Your task to perform on an android device: Add macbook air to the cart on ebay Image 0: 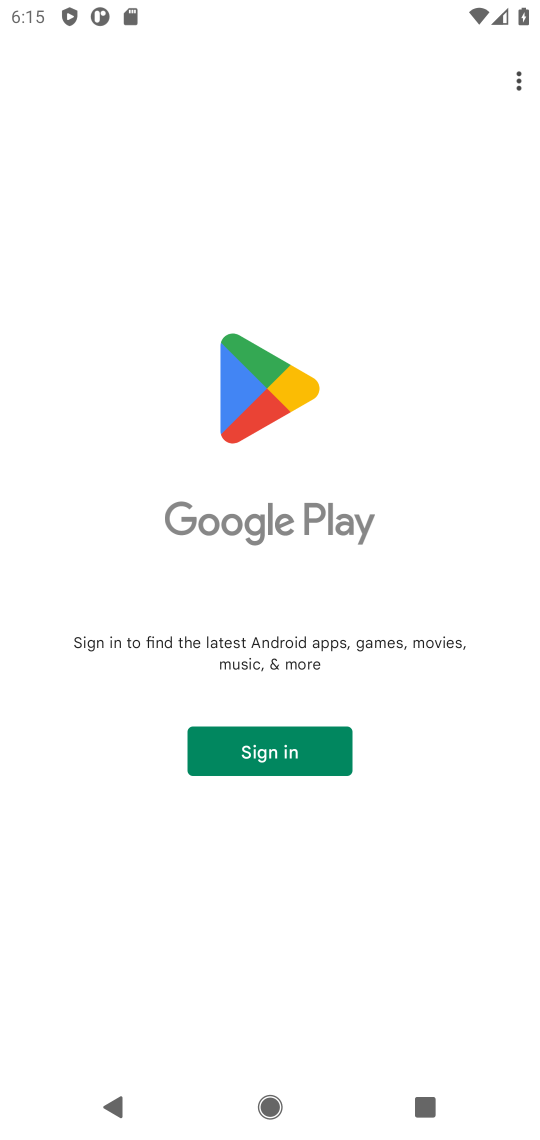
Step 0: press home button
Your task to perform on an android device: Add macbook air to the cart on ebay Image 1: 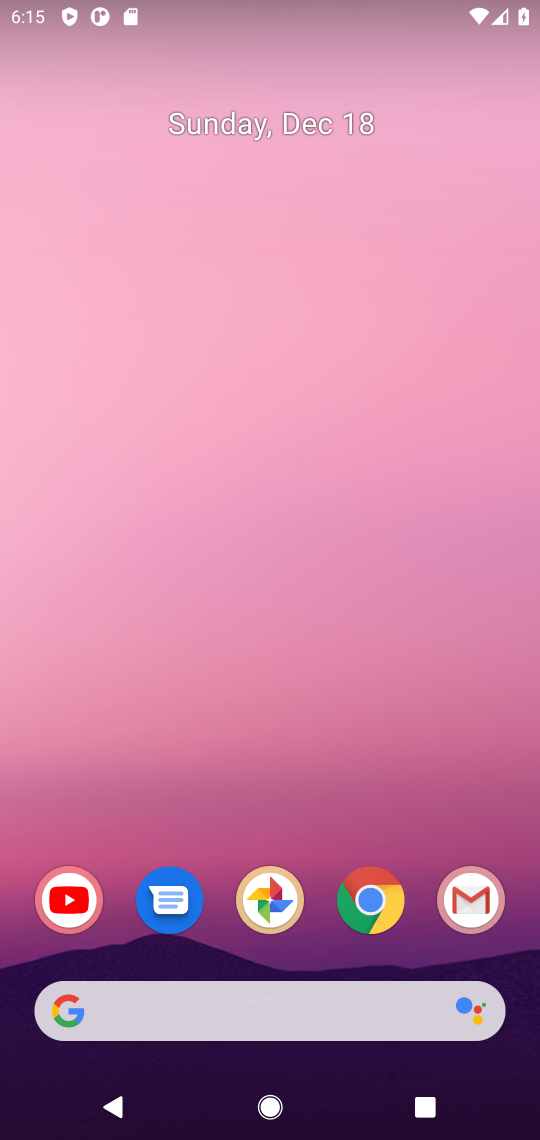
Step 1: click (363, 888)
Your task to perform on an android device: Add macbook air to the cart on ebay Image 2: 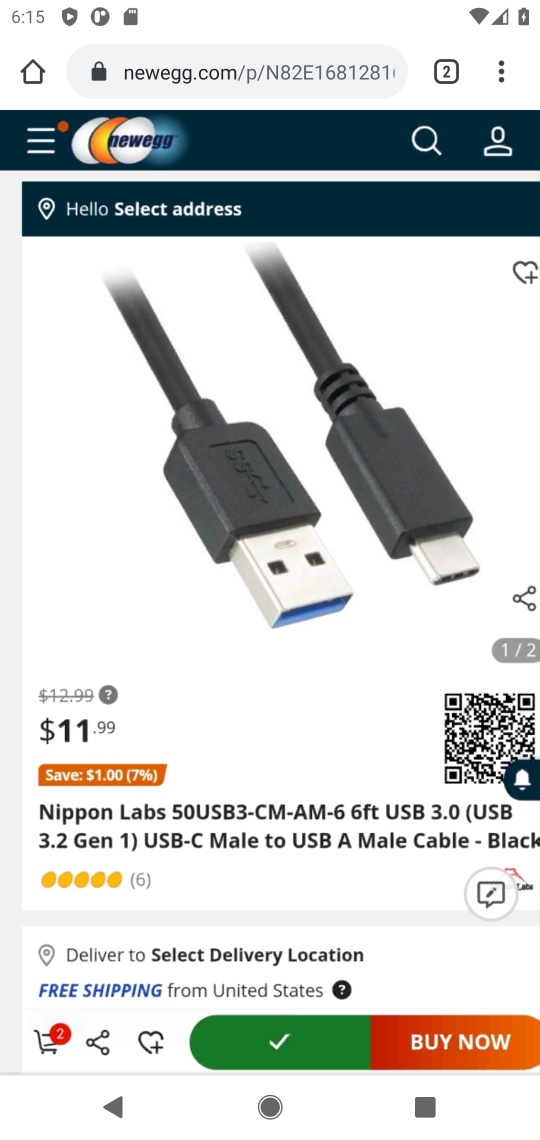
Step 2: click (442, 74)
Your task to perform on an android device: Add macbook air to the cart on ebay Image 3: 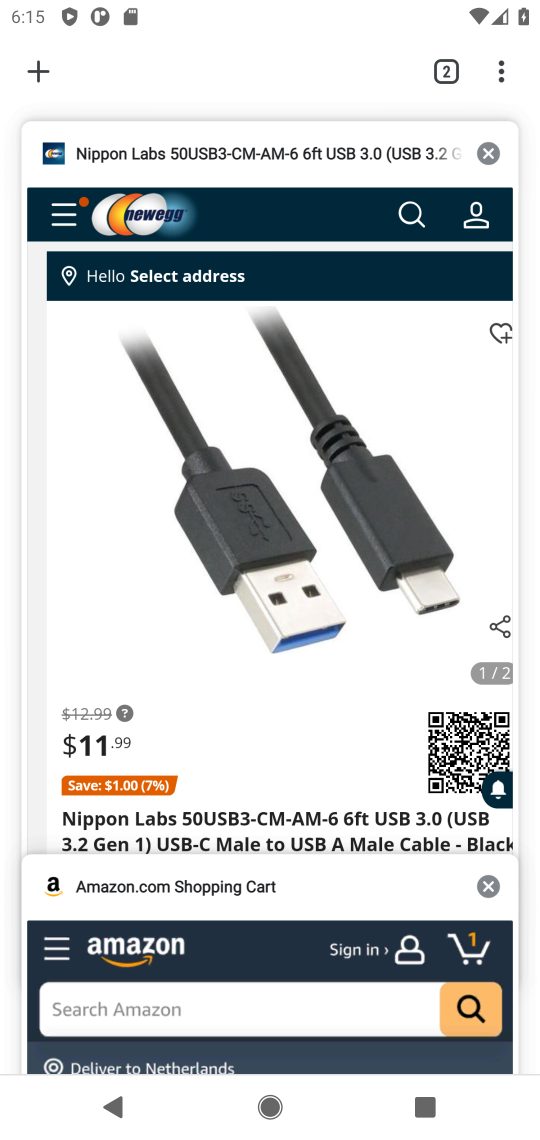
Step 3: click (37, 72)
Your task to perform on an android device: Add macbook air to the cart on ebay Image 4: 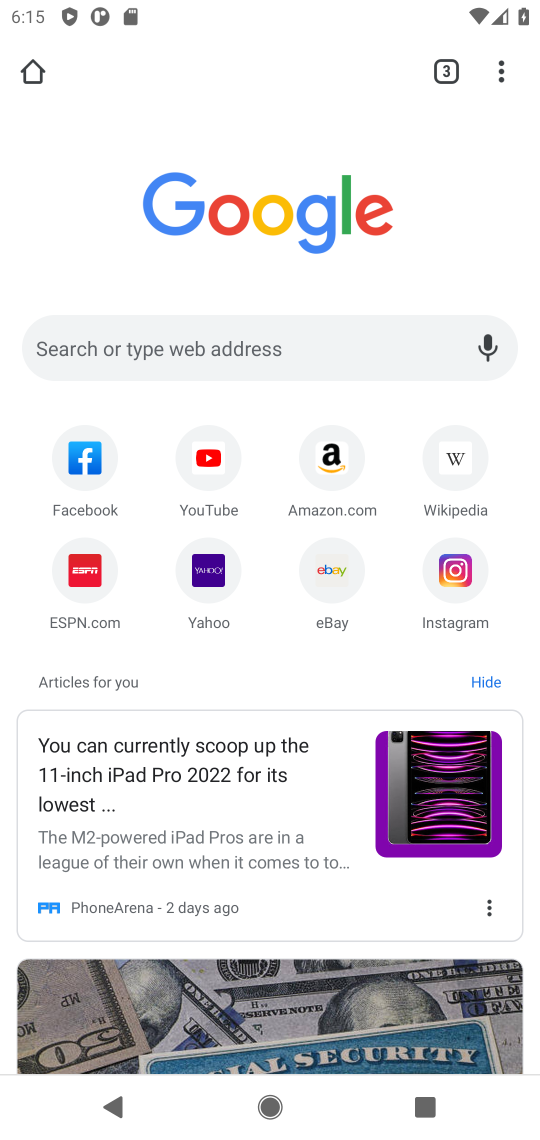
Step 4: click (339, 553)
Your task to perform on an android device: Add macbook air to the cart on ebay Image 5: 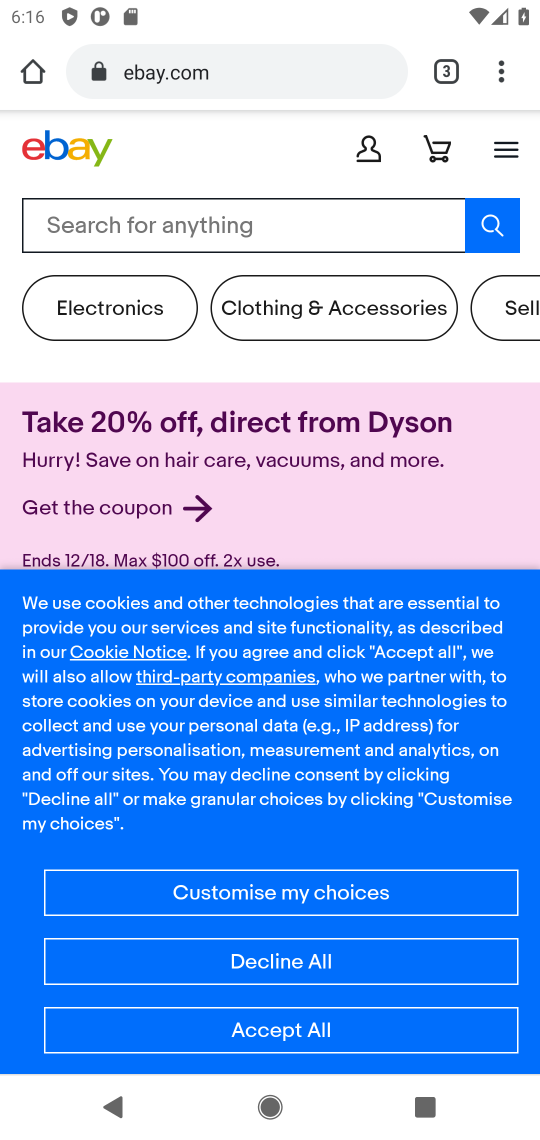
Step 5: click (313, 961)
Your task to perform on an android device: Add macbook air to the cart on ebay Image 6: 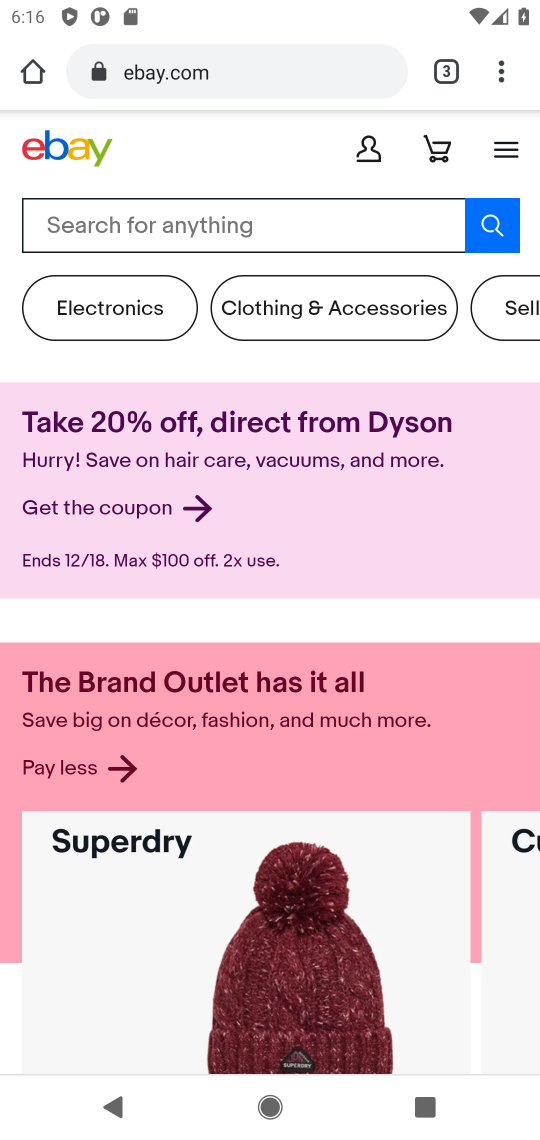
Step 6: click (273, 225)
Your task to perform on an android device: Add macbook air to the cart on ebay Image 7: 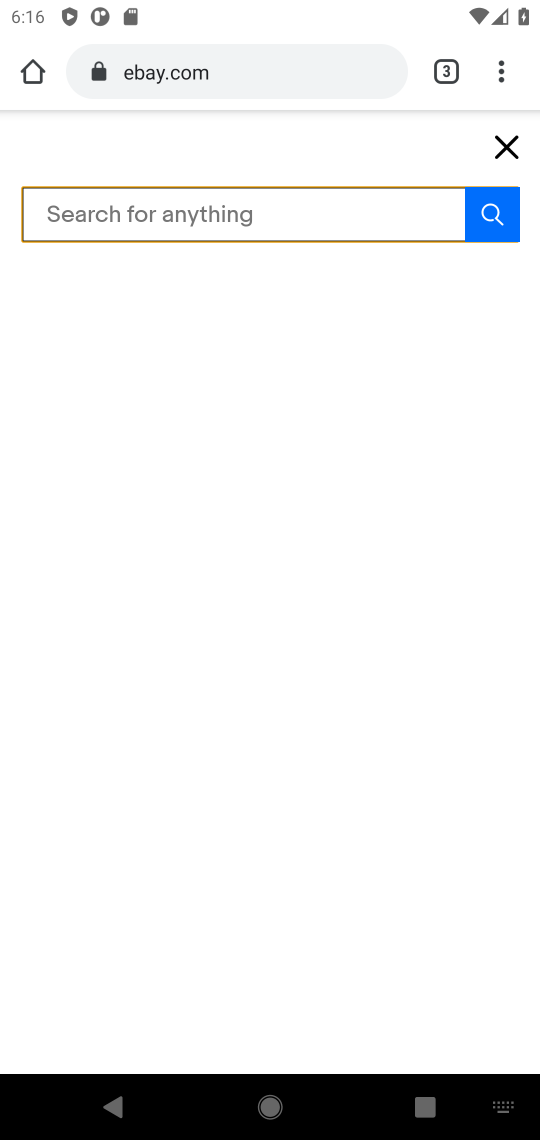
Step 7: type "macbook air"
Your task to perform on an android device: Add macbook air to the cart on ebay Image 8: 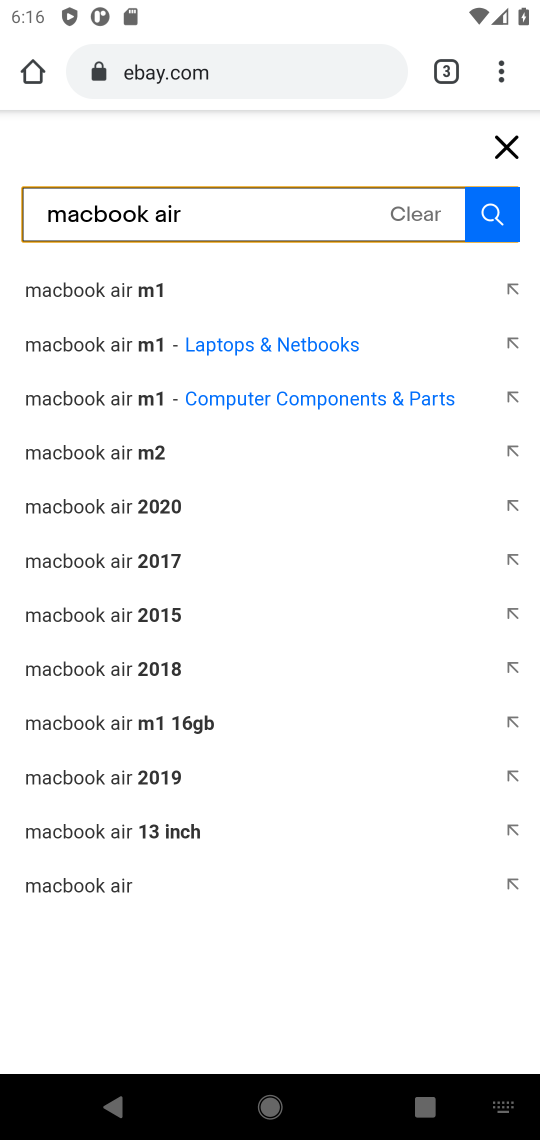
Step 8: click (117, 340)
Your task to perform on an android device: Add macbook air to the cart on ebay Image 9: 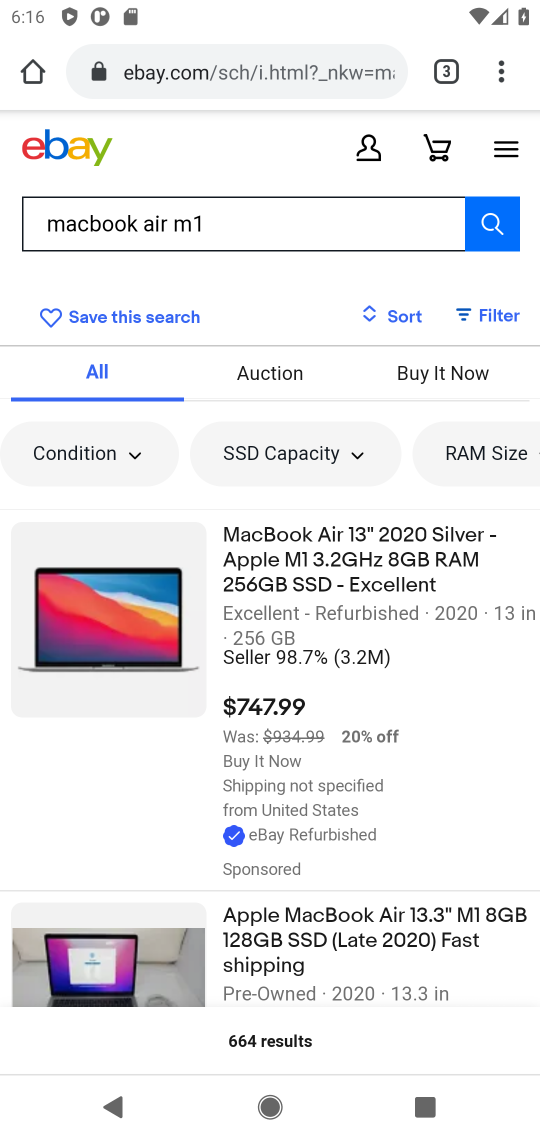
Step 9: click (380, 538)
Your task to perform on an android device: Add macbook air to the cart on ebay Image 10: 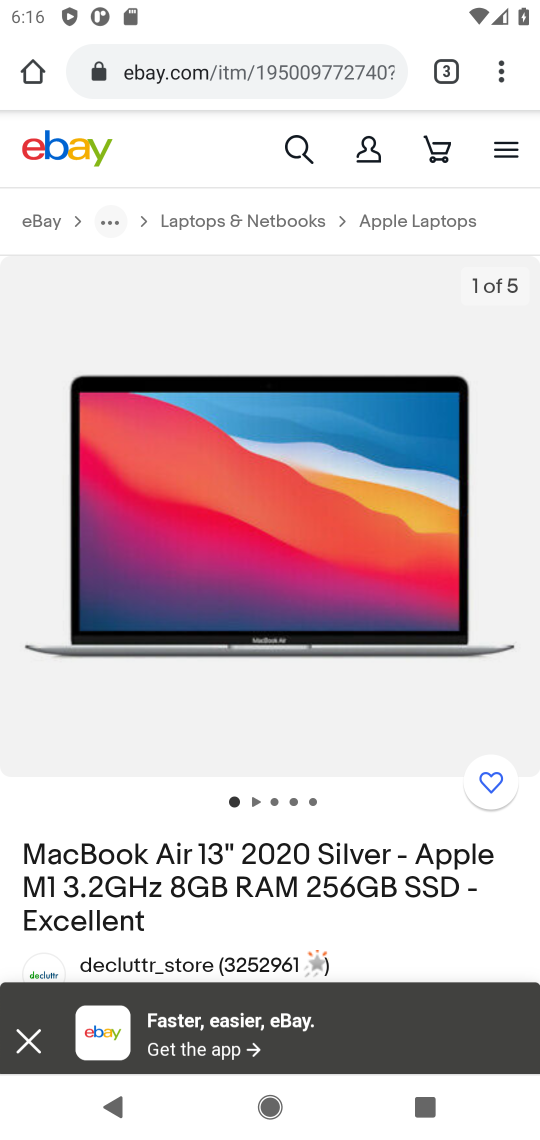
Step 10: drag from (279, 1000) to (387, 353)
Your task to perform on an android device: Add macbook air to the cart on ebay Image 11: 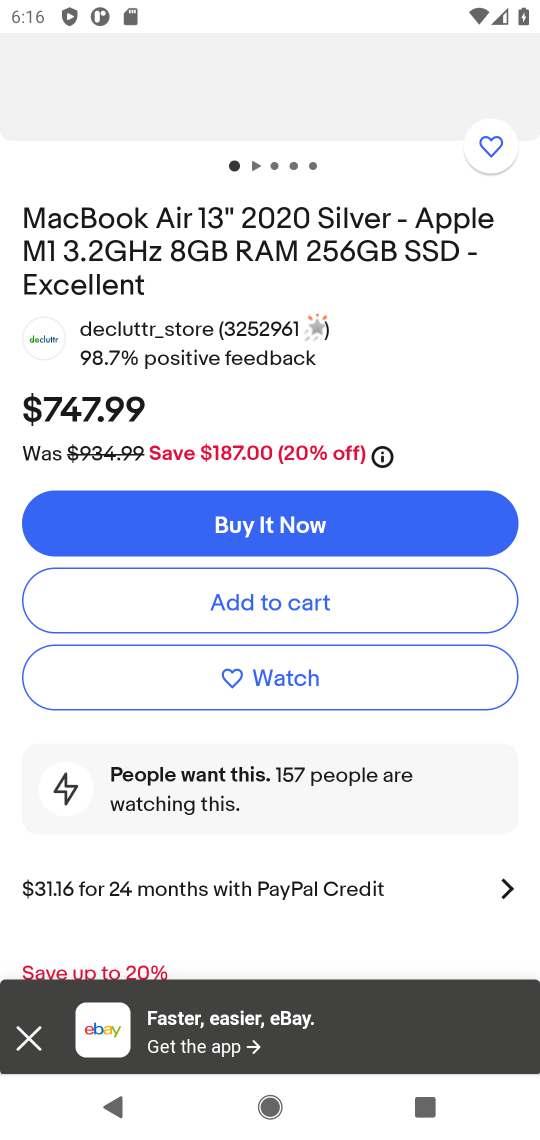
Step 11: click (279, 605)
Your task to perform on an android device: Add macbook air to the cart on ebay Image 12: 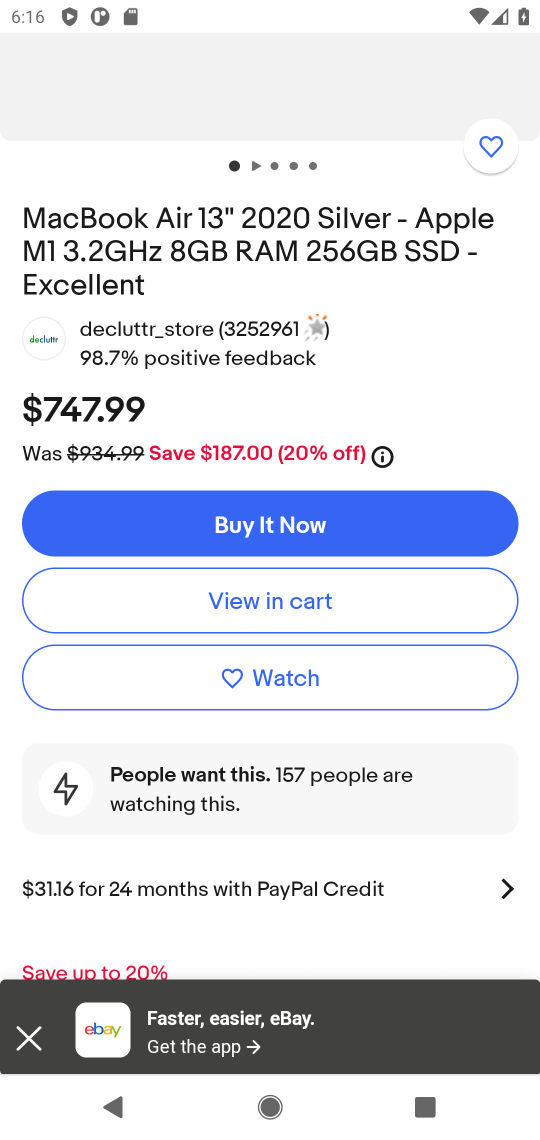
Step 12: task complete